Your task to perform on an android device: open app "McDonald's" Image 0: 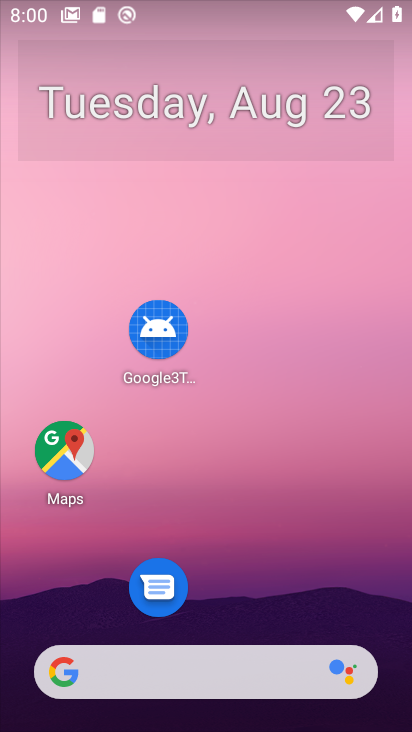
Step 0: drag from (354, 276) to (403, 62)
Your task to perform on an android device: open app "McDonald's" Image 1: 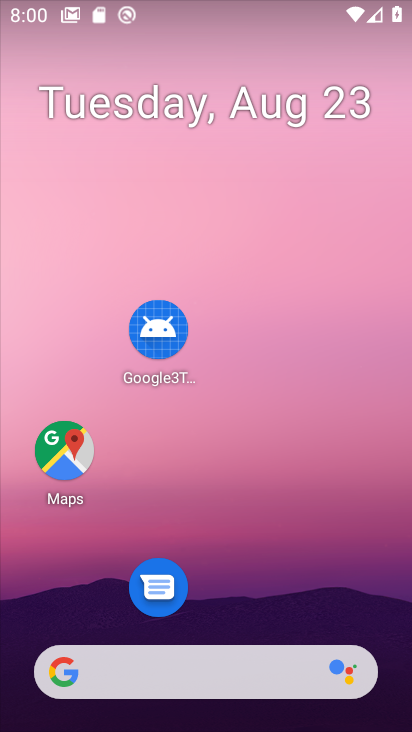
Step 1: drag from (272, 611) to (277, 240)
Your task to perform on an android device: open app "McDonald's" Image 2: 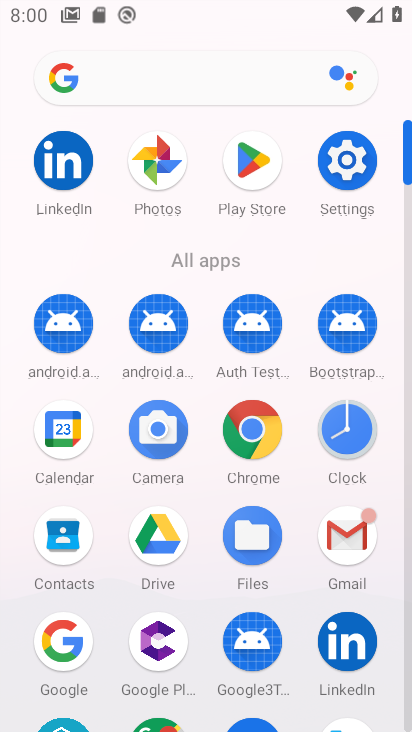
Step 2: click (249, 150)
Your task to perform on an android device: open app "McDonald's" Image 3: 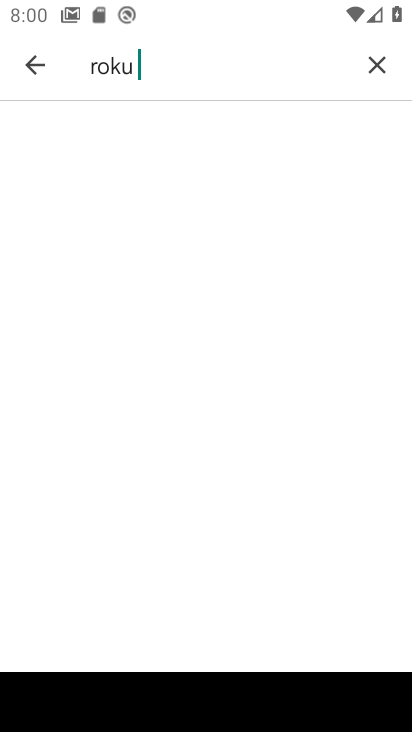
Step 3: click (370, 69)
Your task to perform on an android device: open app "McDonald's" Image 4: 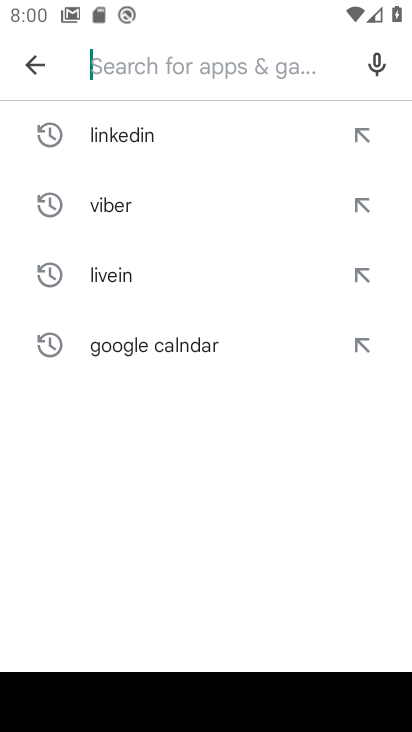
Step 4: type "Mcdolands"
Your task to perform on an android device: open app "McDonald's" Image 5: 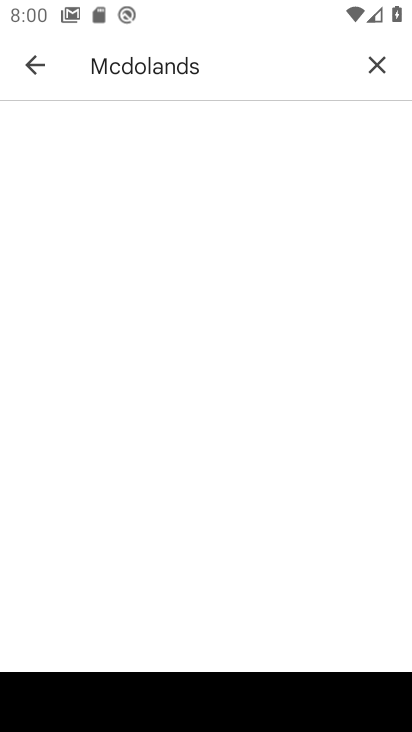
Step 5: task complete